Your task to perform on an android device: Check the news Image 0: 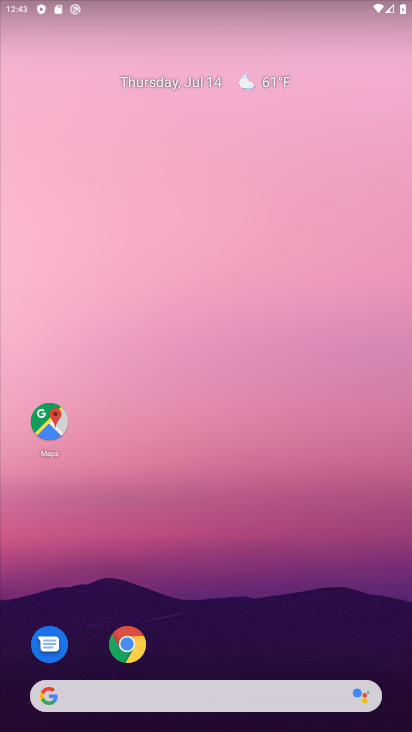
Step 0: drag from (249, 681) to (268, 287)
Your task to perform on an android device: Check the news Image 1: 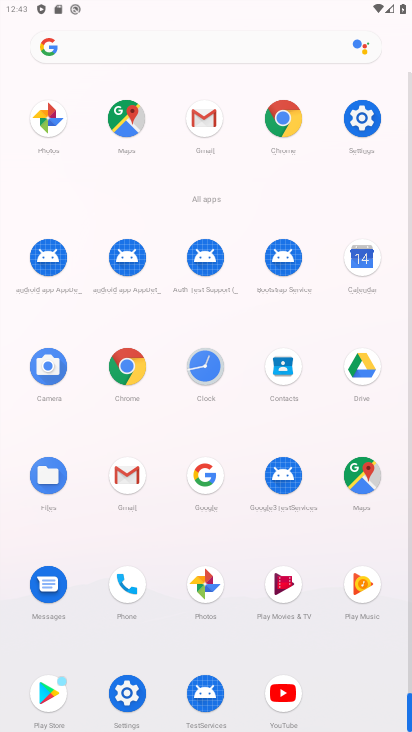
Step 1: drag from (215, 361) to (183, 61)
Your task to perform on an android device: Check the news Image 2: 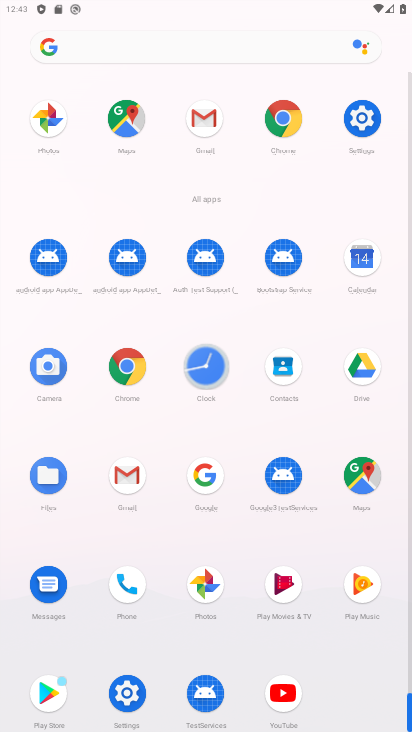
Step 2: drag from (222, 640) to (176, 178)
Your task to perform on an android device: Check the news Image 3: 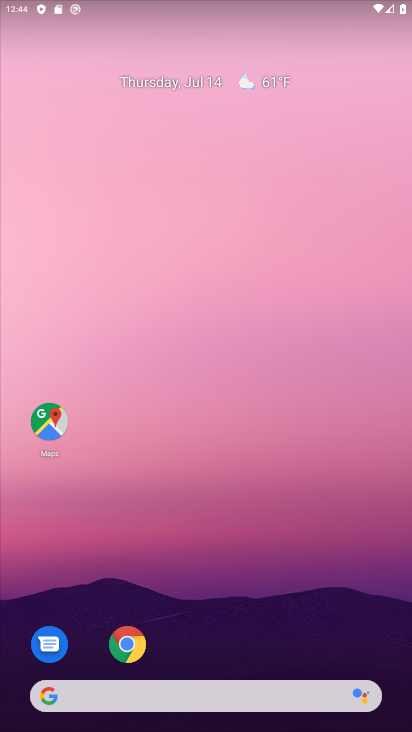
Step 3: drag from (252, 100) to (302, 82)
Your task to perform on an android device: Check the news Image 4: 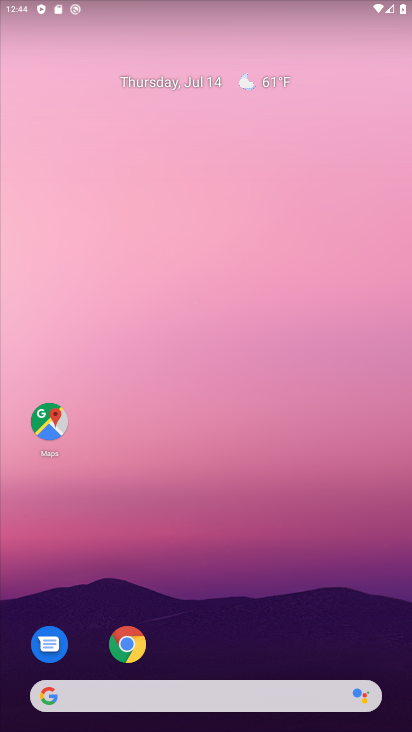
Step 4: click (285, 128)
Your task to perform on an android device: Check the news Image 5: 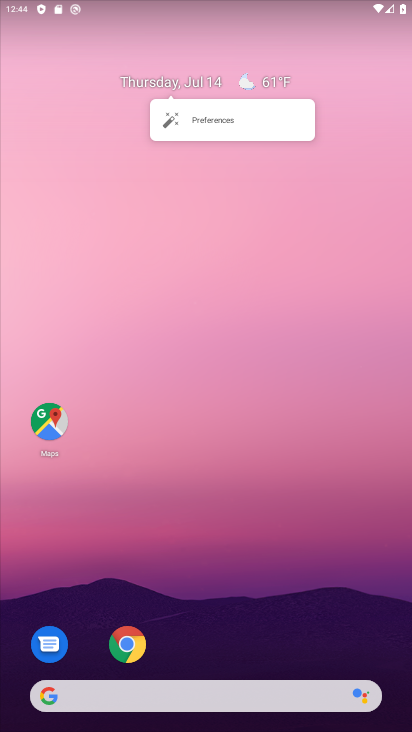
Step 5: drag from (250, 398) to (218, 63)
Your task to perform on an android device: Check the news Image 6: 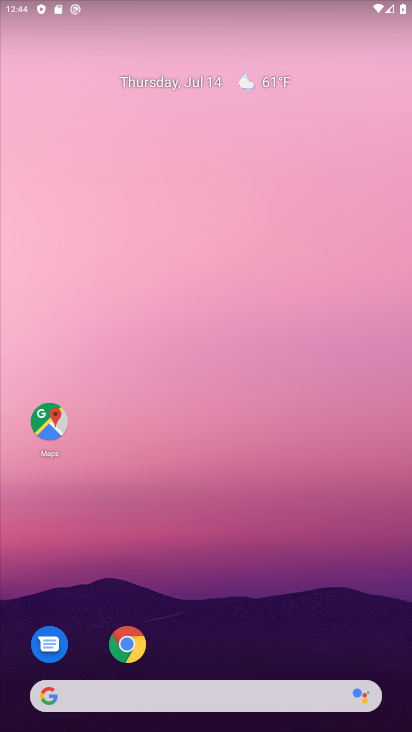
Step 6: drag from (226, 482) to (173, 165)
Your task to perform on an android device: Check the news Image 7: 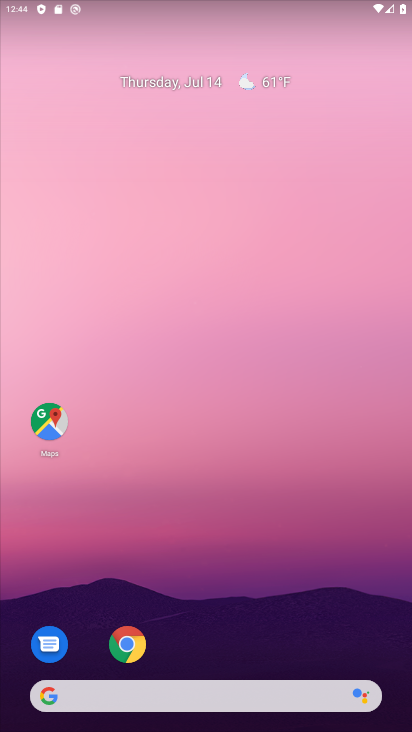
Step 7: drag from (234, 48) to (158, 32)
Your task to perform on an android device: Check the news Image 8: 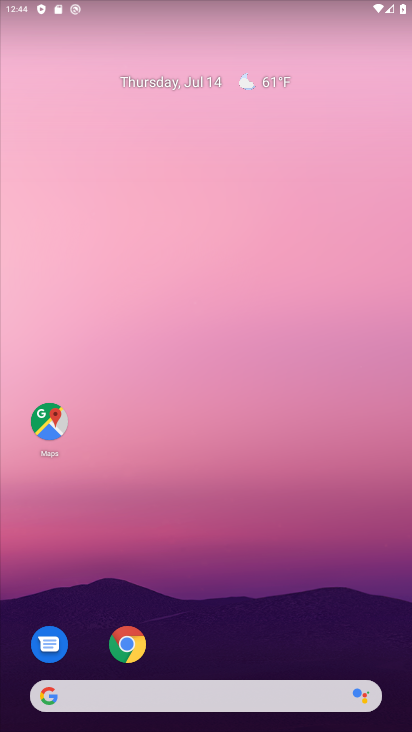
Step 8: click (268, 73)
Your task to perform on an android device: Check the news Image 9: 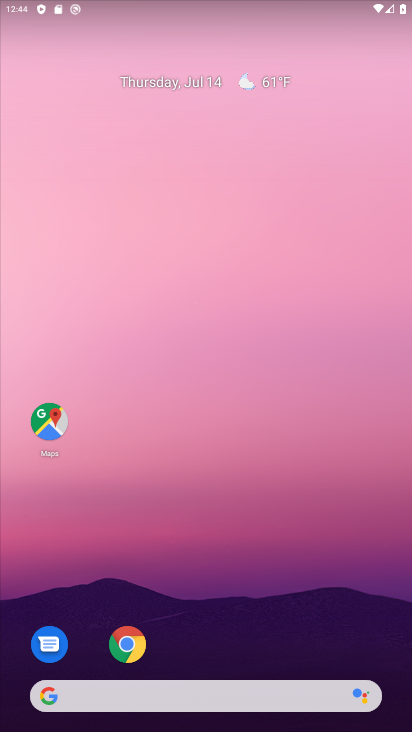
Step 9: task complete